Your task to perform on an android device: toggle airplane mode Image 0: 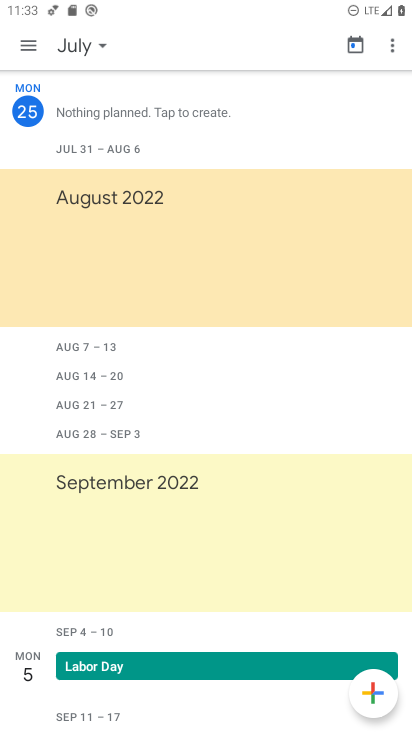
Step 0: press home button
Your task to perform on an android device: toggle airplane mode Image 1: 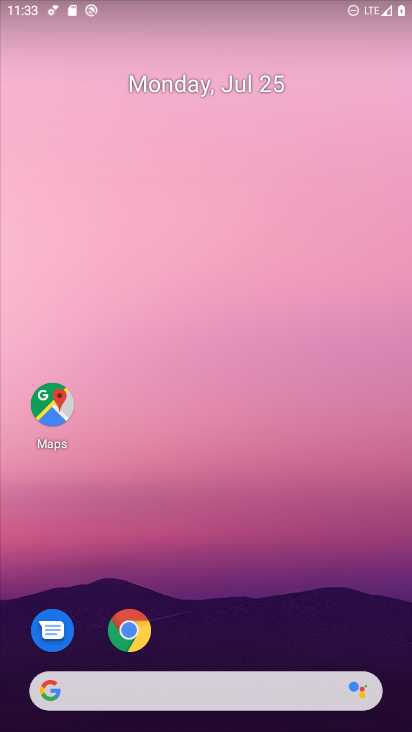
Step 1: drag from (220, 663) to (217, 2)
Your task to perform on an android device: toggle airplane mode Image 2: 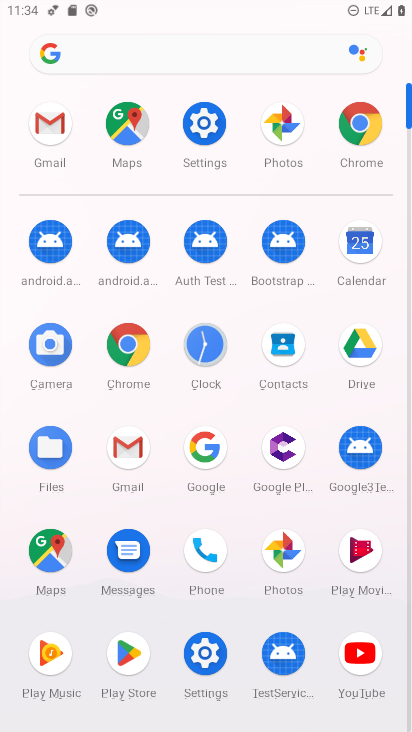
Step 2: click (201, 123)
Your task to perform on an android device: toggle airplane mode Image 3: 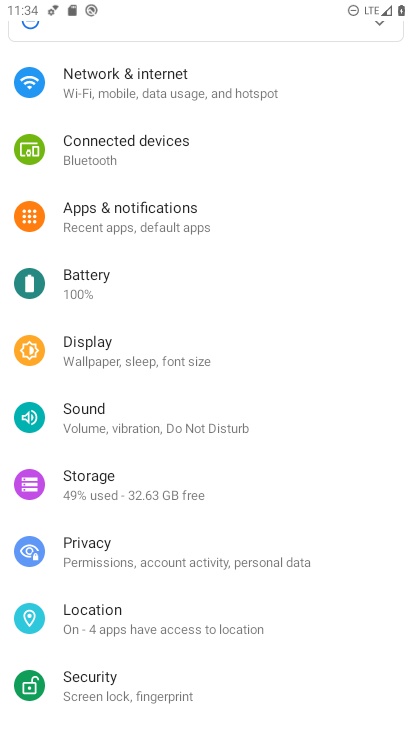
Step 3: click (111, 90)
Your task to perform on an android device: toggle airplane mode Image 4: 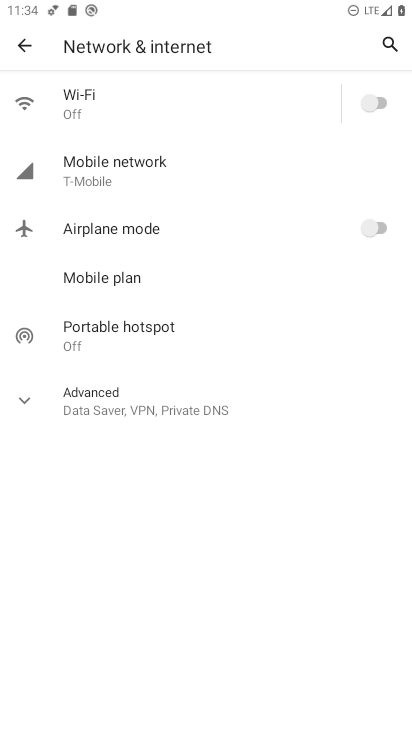
Step 4: click (384, 226)
Your task to perform on an android device: toggle airplane mode Image 5: 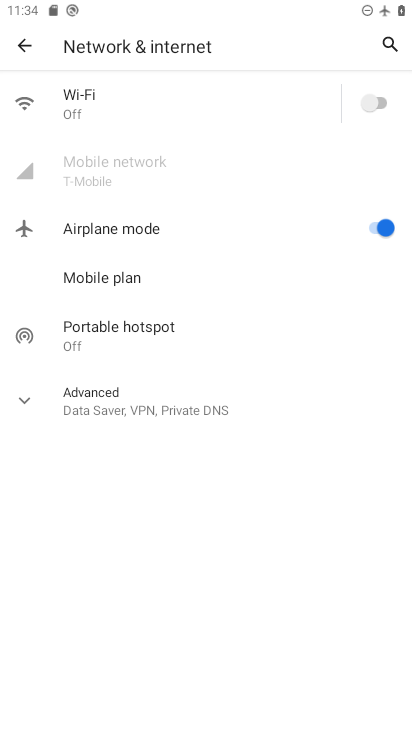
Step 5: task complete